Your task to perform on an android device: turn on location history Image 0: 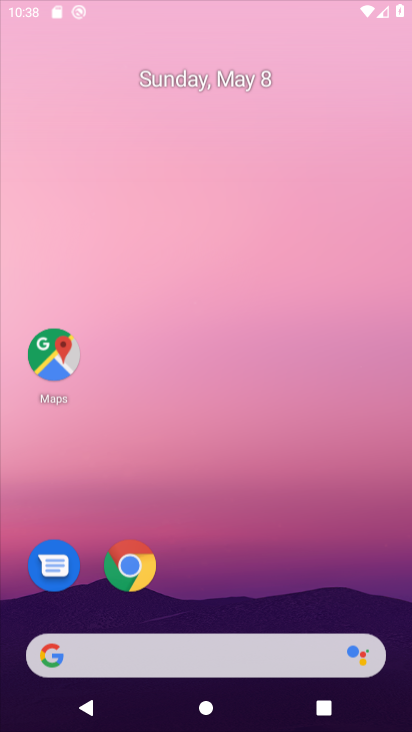
Step 0: drag from (233, 590) to (232, 0)
Your task to perform on an android device: turn on location history Image 1: 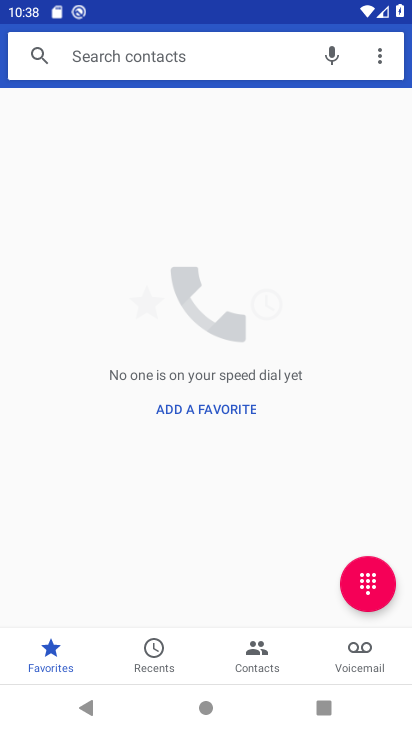
Step 1: press home button
Your task to perform on an android device: turn on location history Image 2: 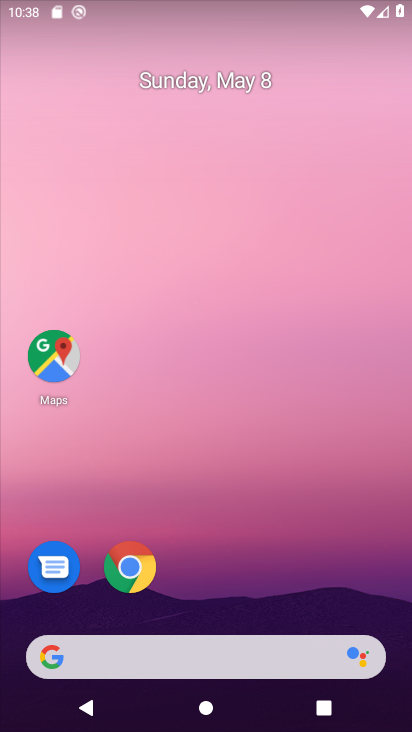
Step 2: drag from (301, 587) to (263, 184)
Your task to perform on an android device: turn on location history Image 3: 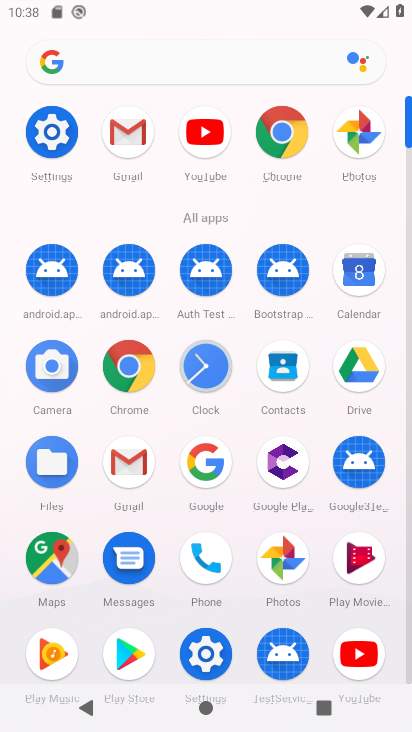
Step 3: click (61, 141)
Your task to perform on an android device: turn on location history Image 4: 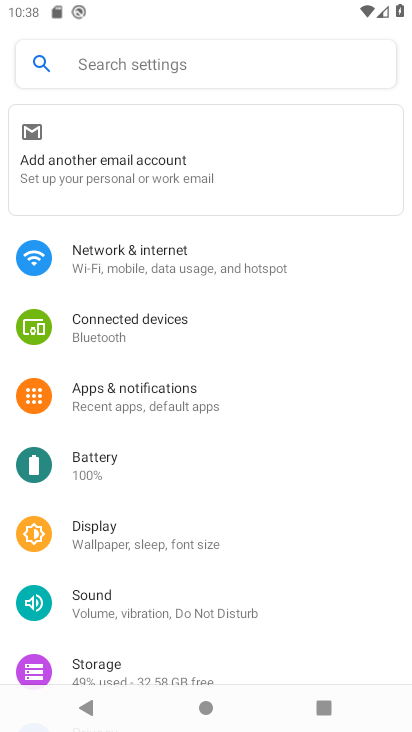
Step 4: drag from (184, 562) to (244, 180)
Your task to perform on an android device: turn on location history Image 5: 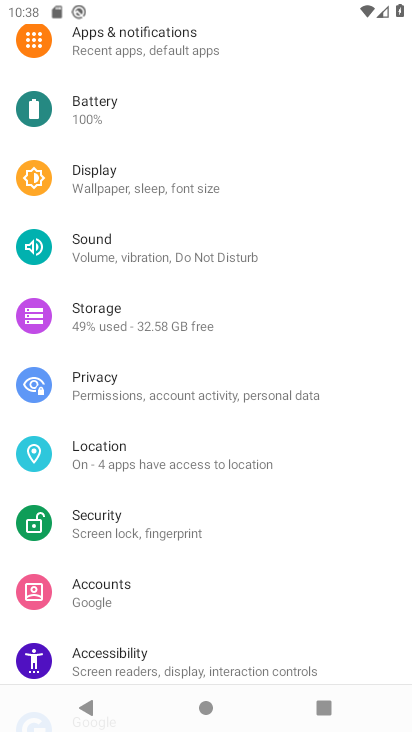
Step 5: drag from (203, 214) to (93, 655)
Your task to perform on an android device: turn on location history Image 6: 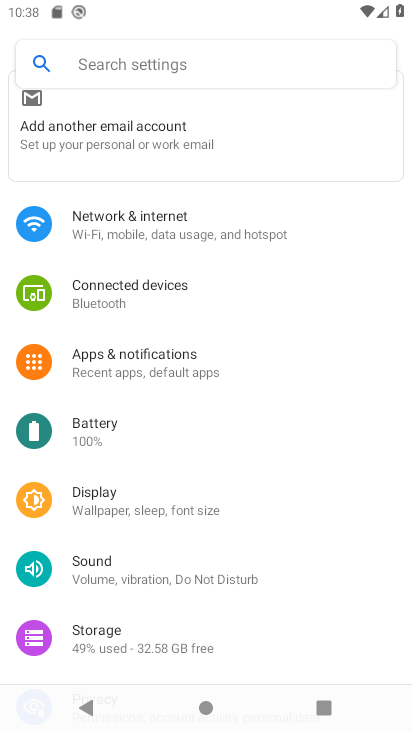
Step 6: drag from (149, 593) to (186, 96)
Your task to perform on an android device: turn on location history Image 7: 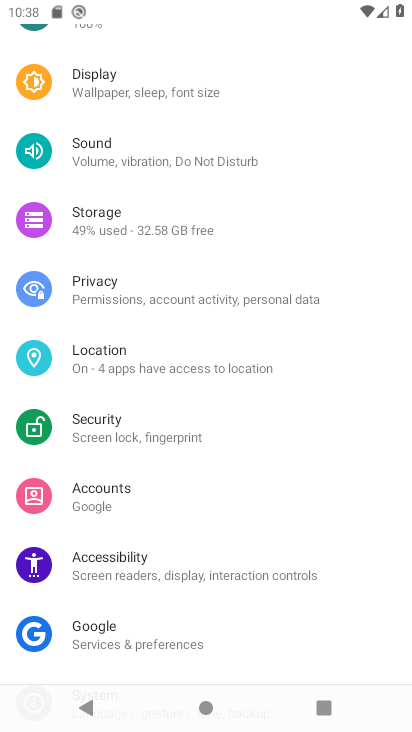
Step 7: drag from (182, 582) to (182, 239)
Your task to perform on an android device: turn on location history Image 8: 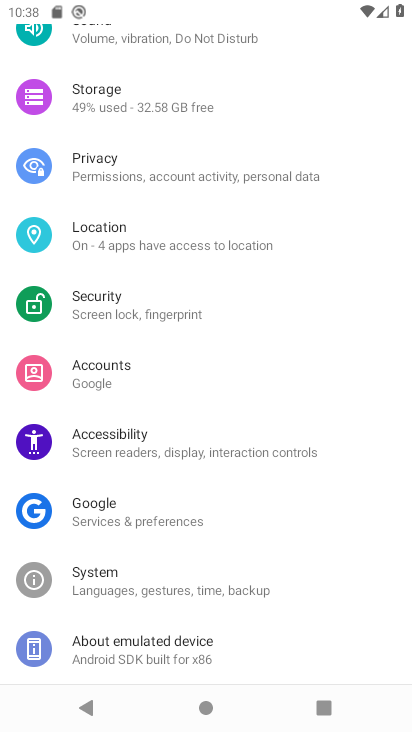
Step 8: click (84, 243)
Your task to perform on an android device: turn on location history Image 9: 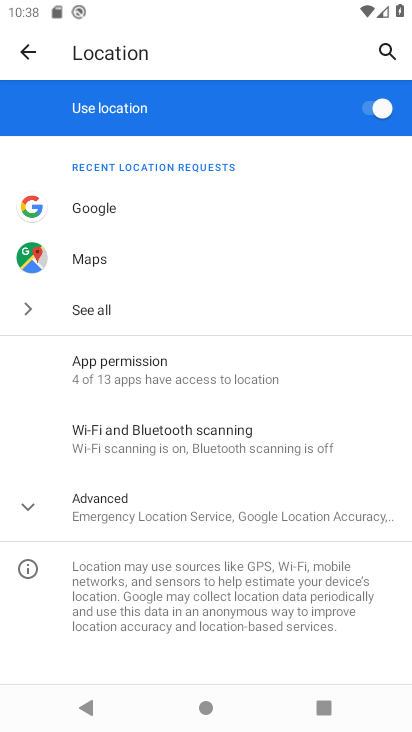
Step 9: click (104, 526)
Your task to perform on an android device: turn on location history Image 10: 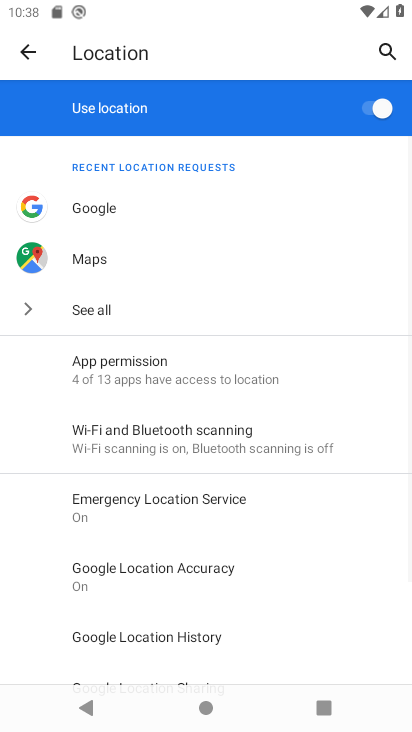
Step 10: drag from (156, 632) to (227, 355)
Your task to perform on an android device: turn on location history Image 11: 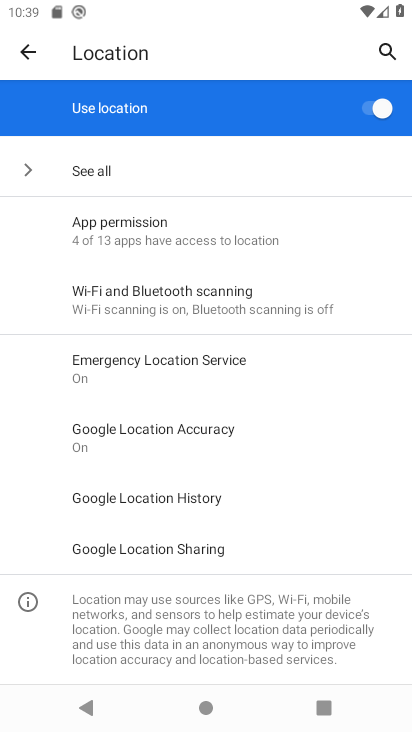
Step 11: click (165, 503)
Your task to perform on an android device: turn on location history Image 12: 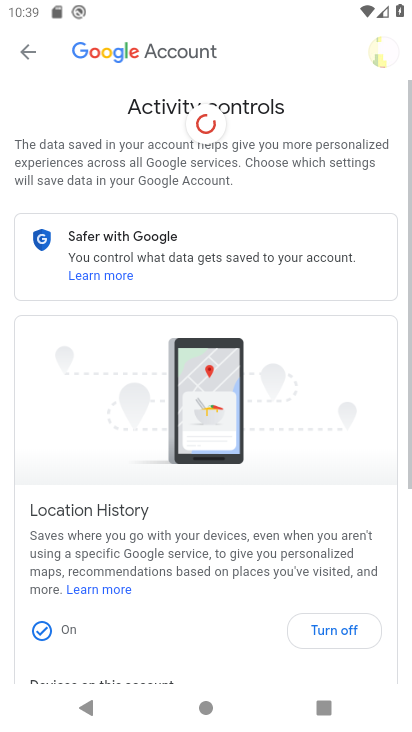
Step 12: task complete